Your task to perform on an android device: What's the weather going to be tomorrow? Image 0: 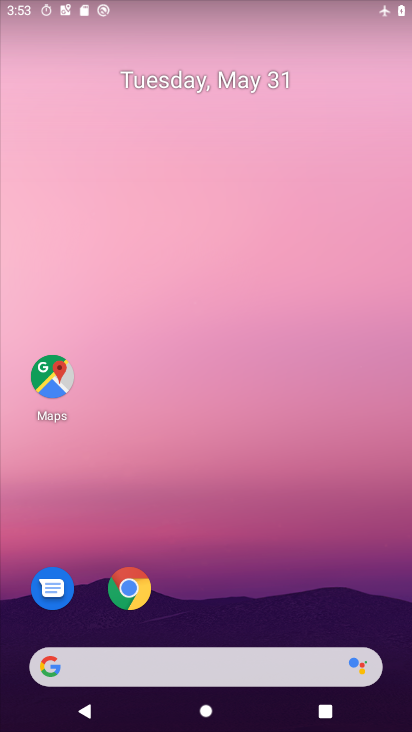
Step 0: drag from (229, 650) to (260, 218)
Your task to perform on an android device: What's the weather going to be tomorrow? Image 1: 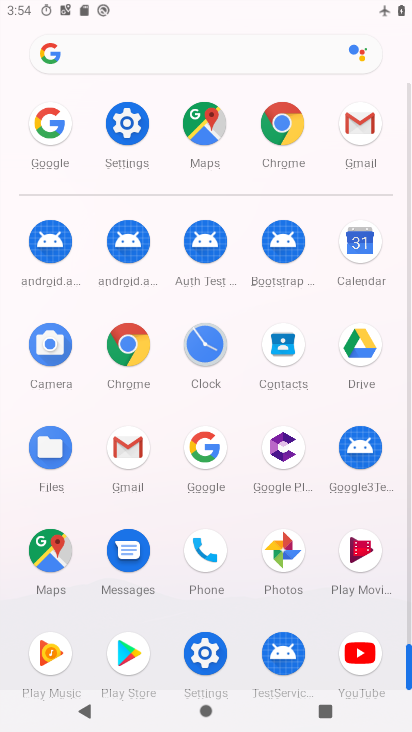
Step 1: click (212, 466)
Your task to perform on an android device: What's the weather going to be tomorrow? Image 2: 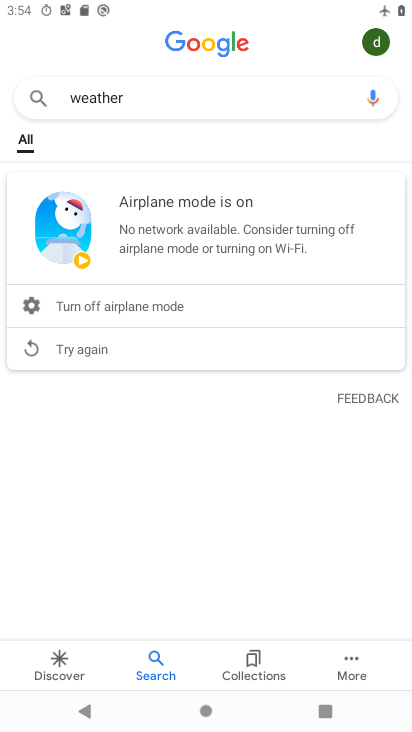
Step 2: task complete